Your task to perform on an android device: Go to location settings Image 0: 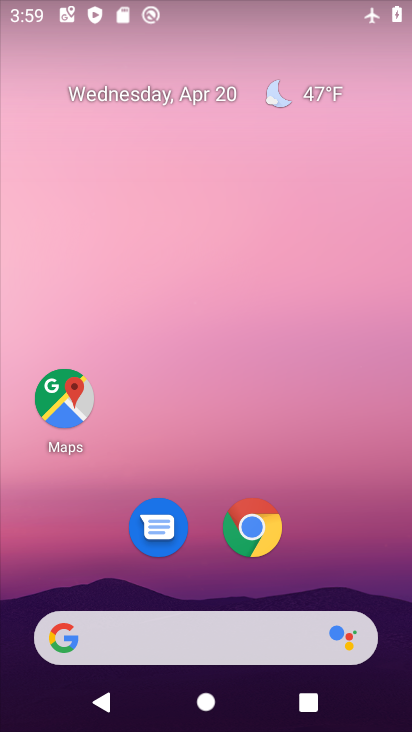
Step 0: drag from (349, 562) to (362, 92)
Your task to perform on an android device: Go to location settings Image 1: 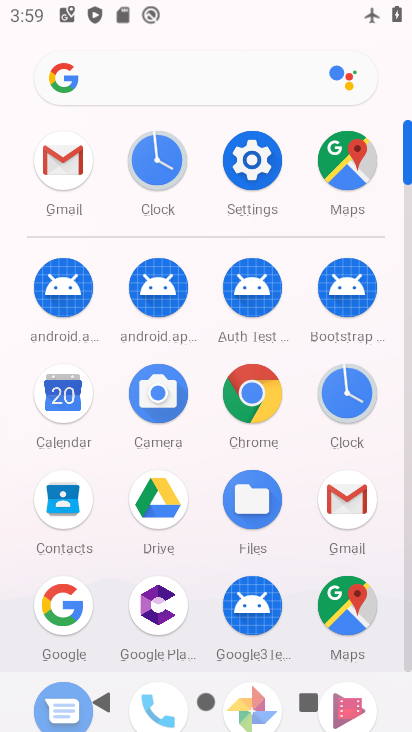
Step 1: click (239, 148)
Your task to perform on an android device: Go to location settings Image 2: 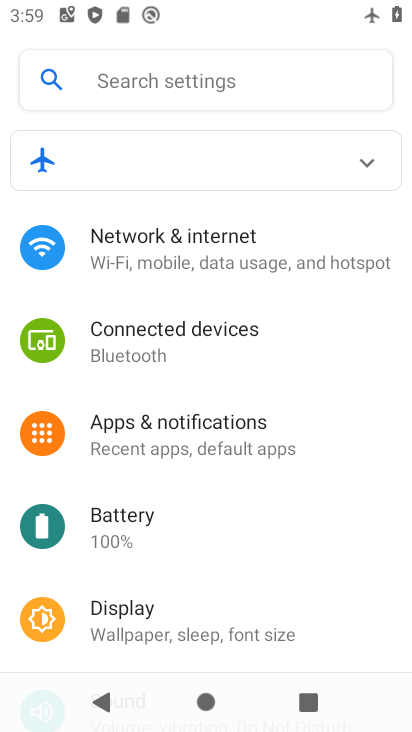
Step 2: drag from (245, 632) to (257, 205)
Your task to perform on an android device: Go to location settings Image 3: 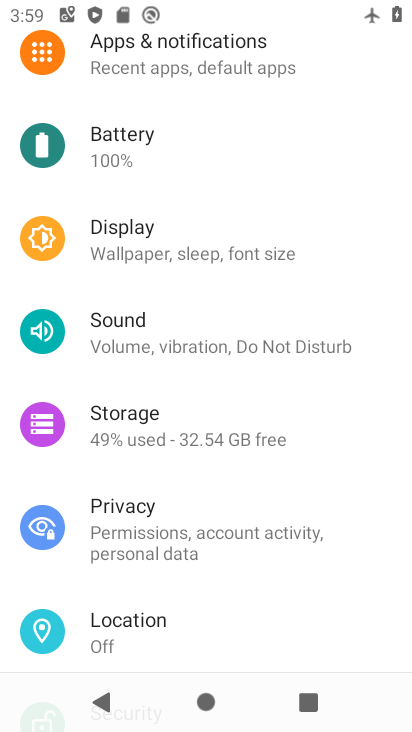
Step 3: click (202, 643)
Your task to perform on an android device: Go to location settings Image 4: 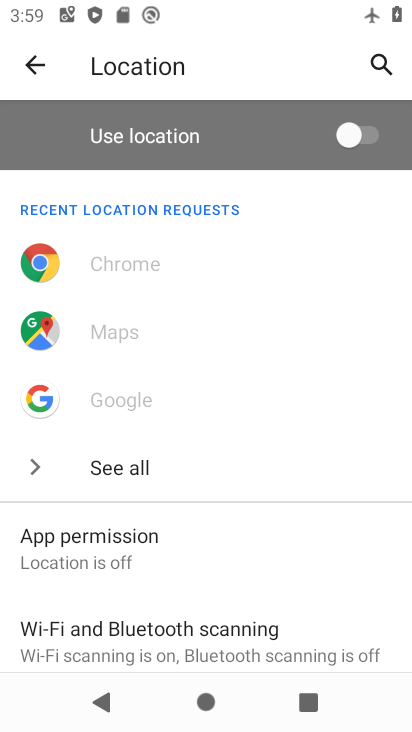
Step 4: task complete